Your task to perform on an android device: Open calendar and show me the third week of next month Image 0: 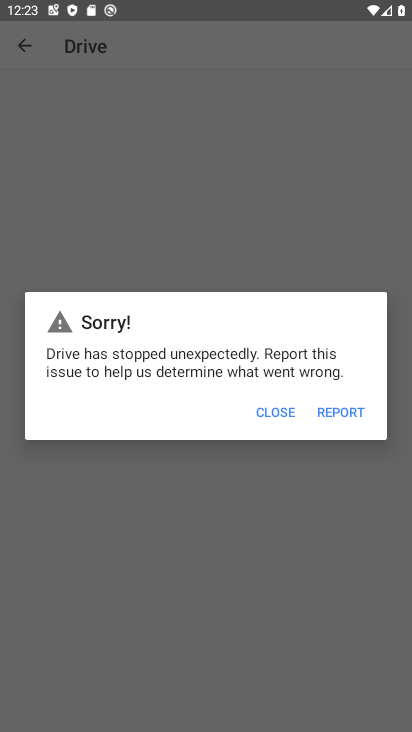
Step 0: press home button
Your task to perform on an android device: Open calendar and show me the third week of next month Image 1: 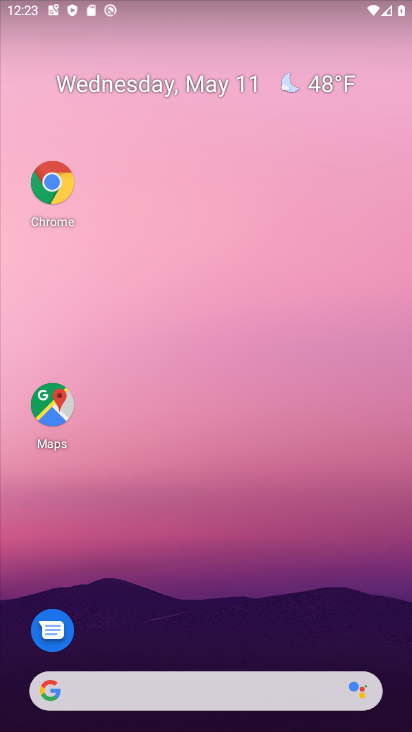
Step 1: drag from (218, 672) to (246, 15)
Your task to perform on an android device: Open calendar and show me the third week of next month Image 2: 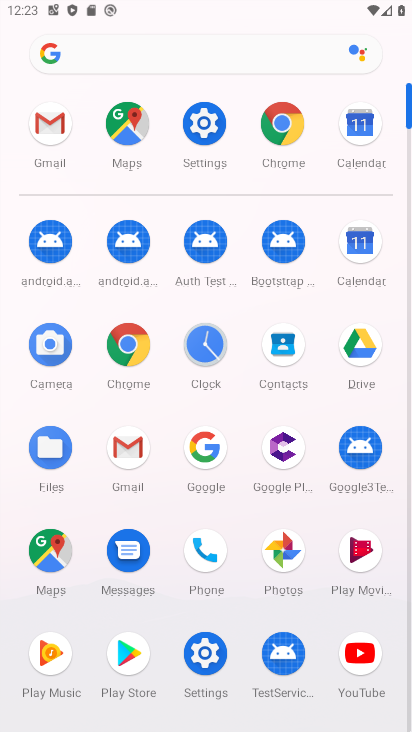
Step 2: click (358, 264)
Your task to perform on an android device: Open calendar and show me the third week of next month Image 3: 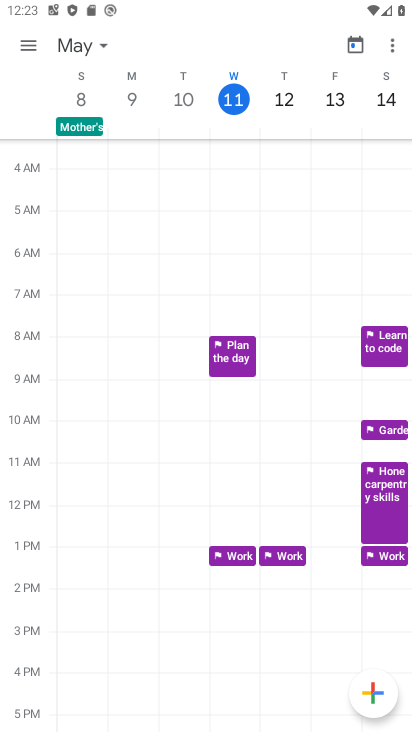
Step 3: task complete